Your task to perform on an android device: open wifi settings Image 0: 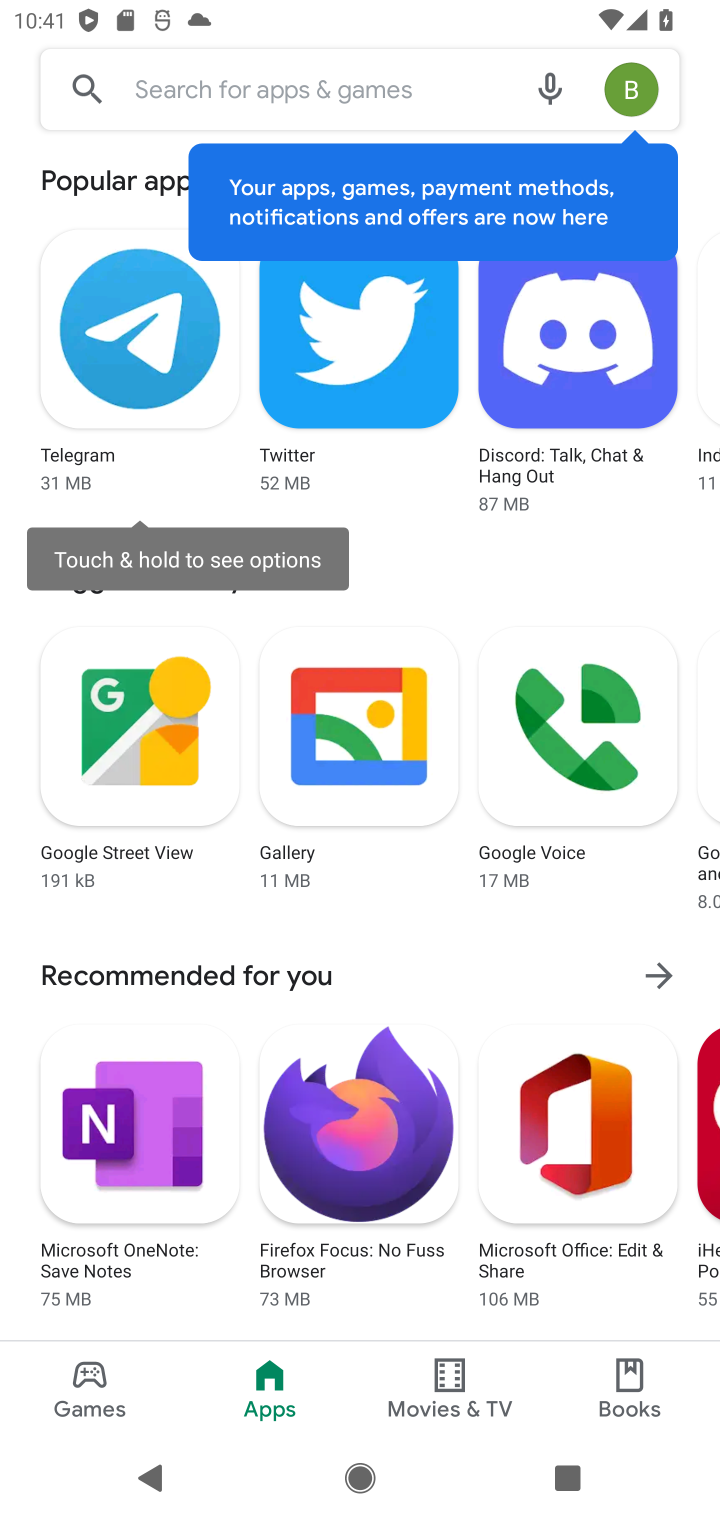
Step 0: press home button
Your task to perform on an android device: open wifi settings Image 1: 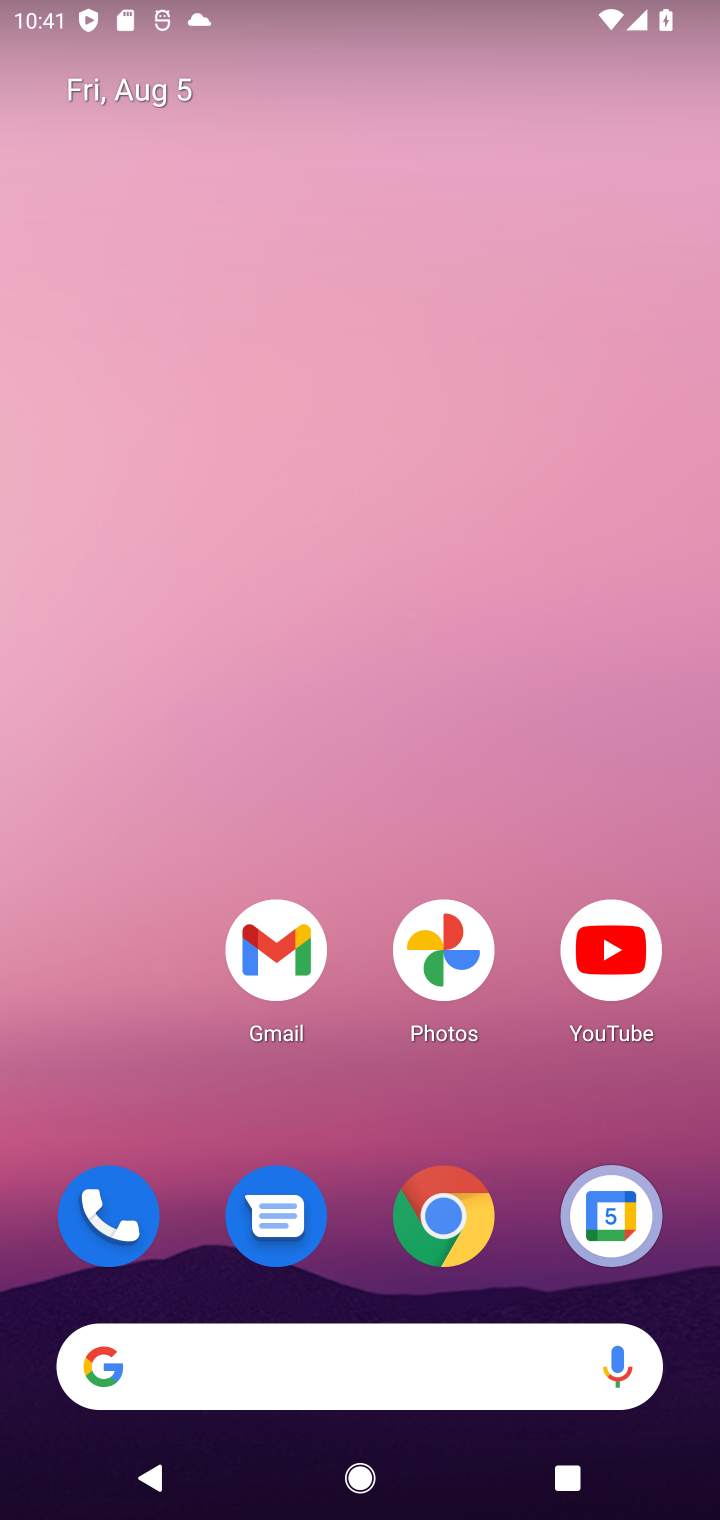
Step 1: drag from (384, 1349) to (366, 96)
Your task to perform on an android device: open wifi settings Image 2: 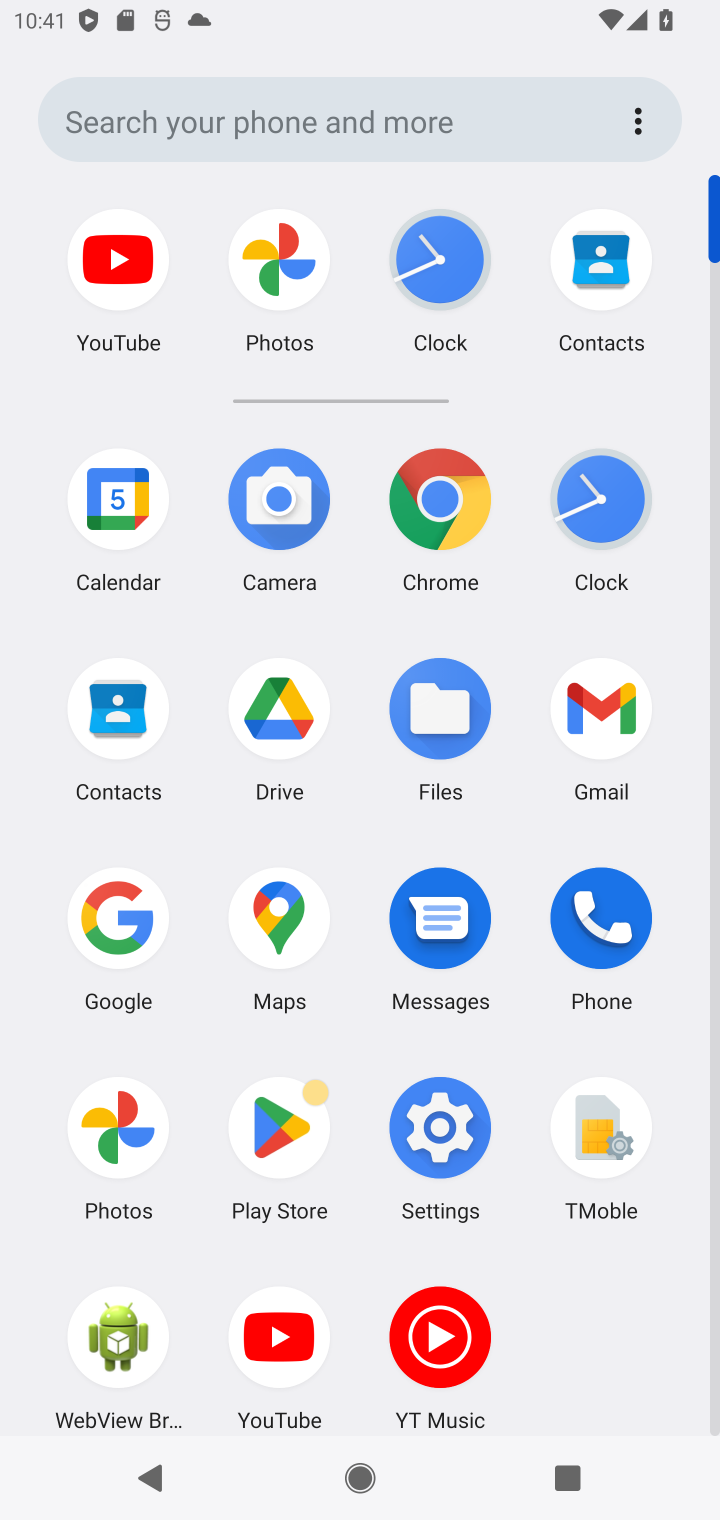
Step 2: click (430, 1134)
Your task to perform on an android device: open wifi settings Image 3: 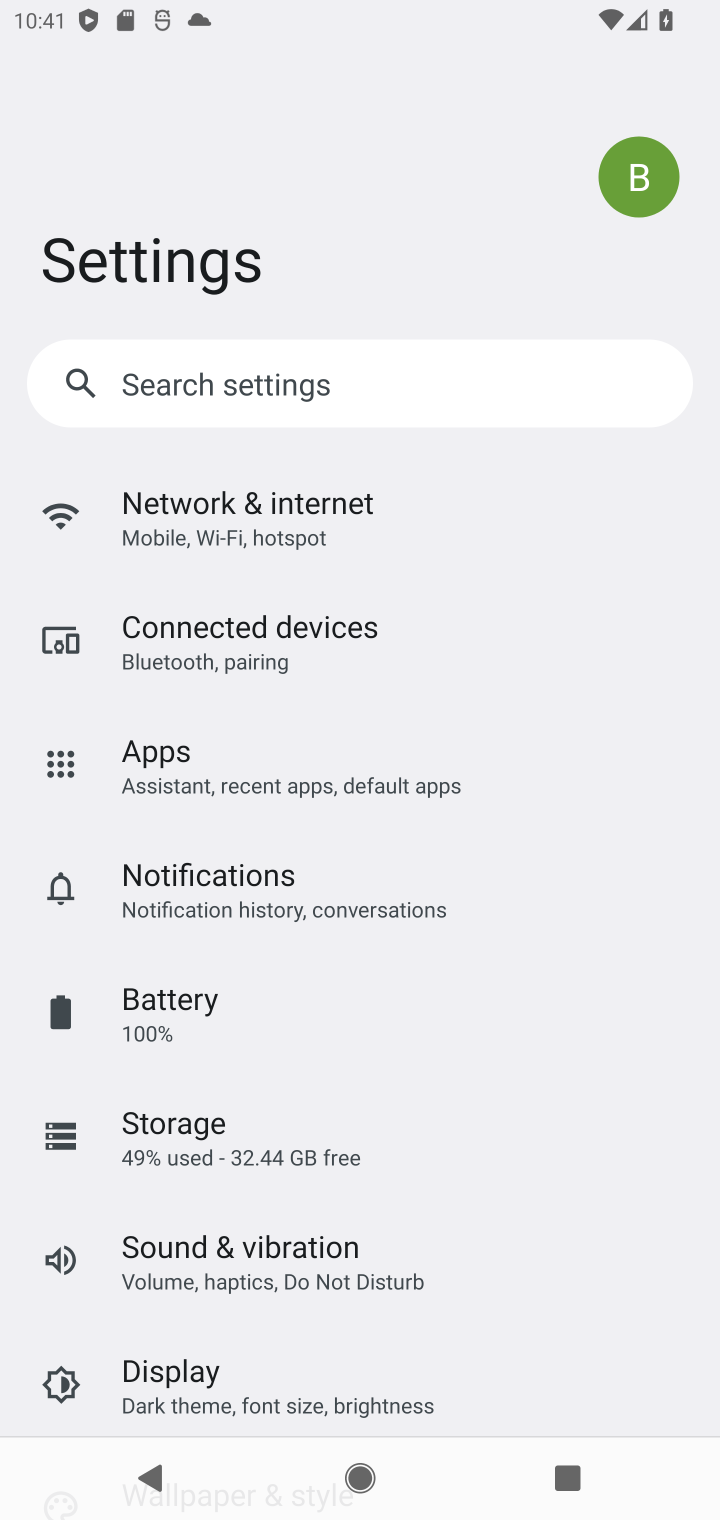
Step 3: click (227, 540)
Your task to perform on an android device: open wifi settings Image 4: 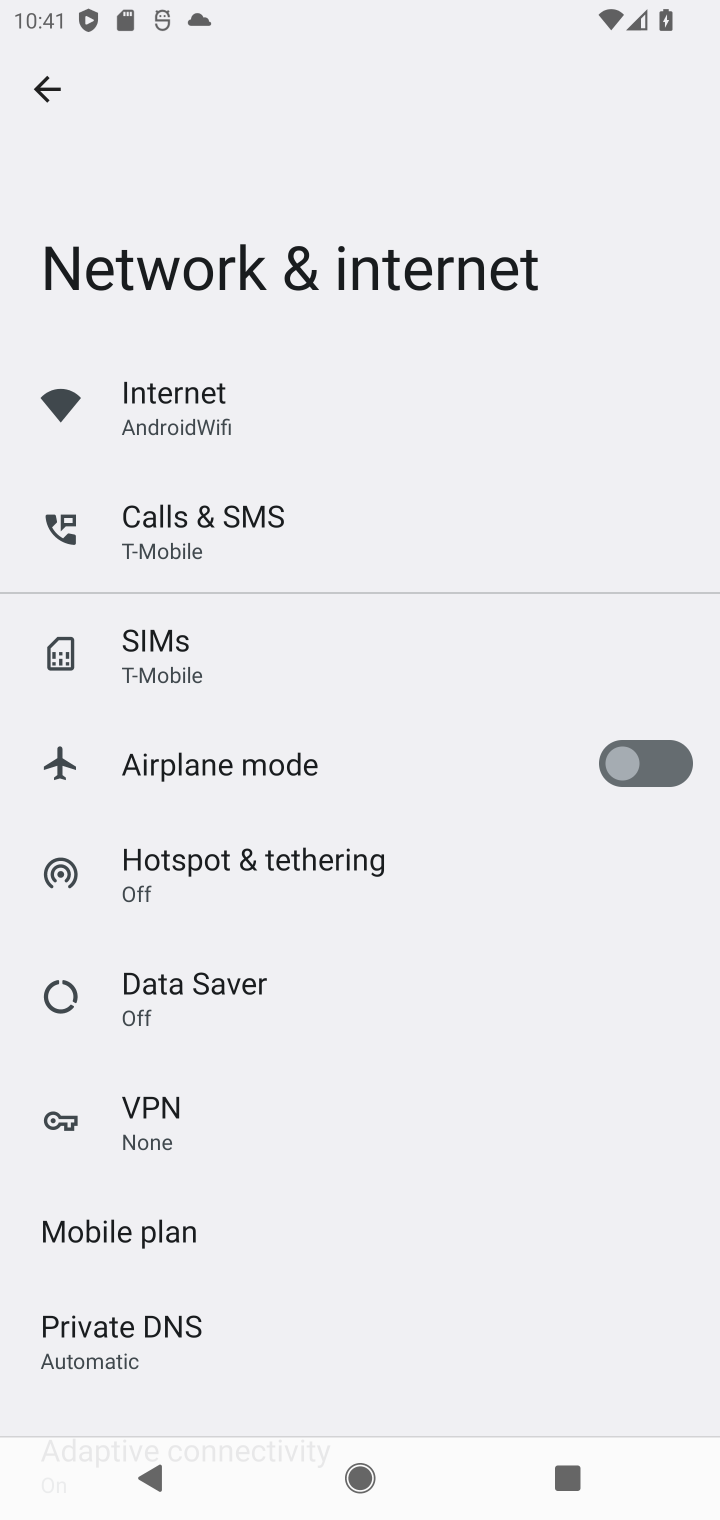
Step 4: click (229, 426)
Your task to perform on an android device: open wifi settings Image 5: 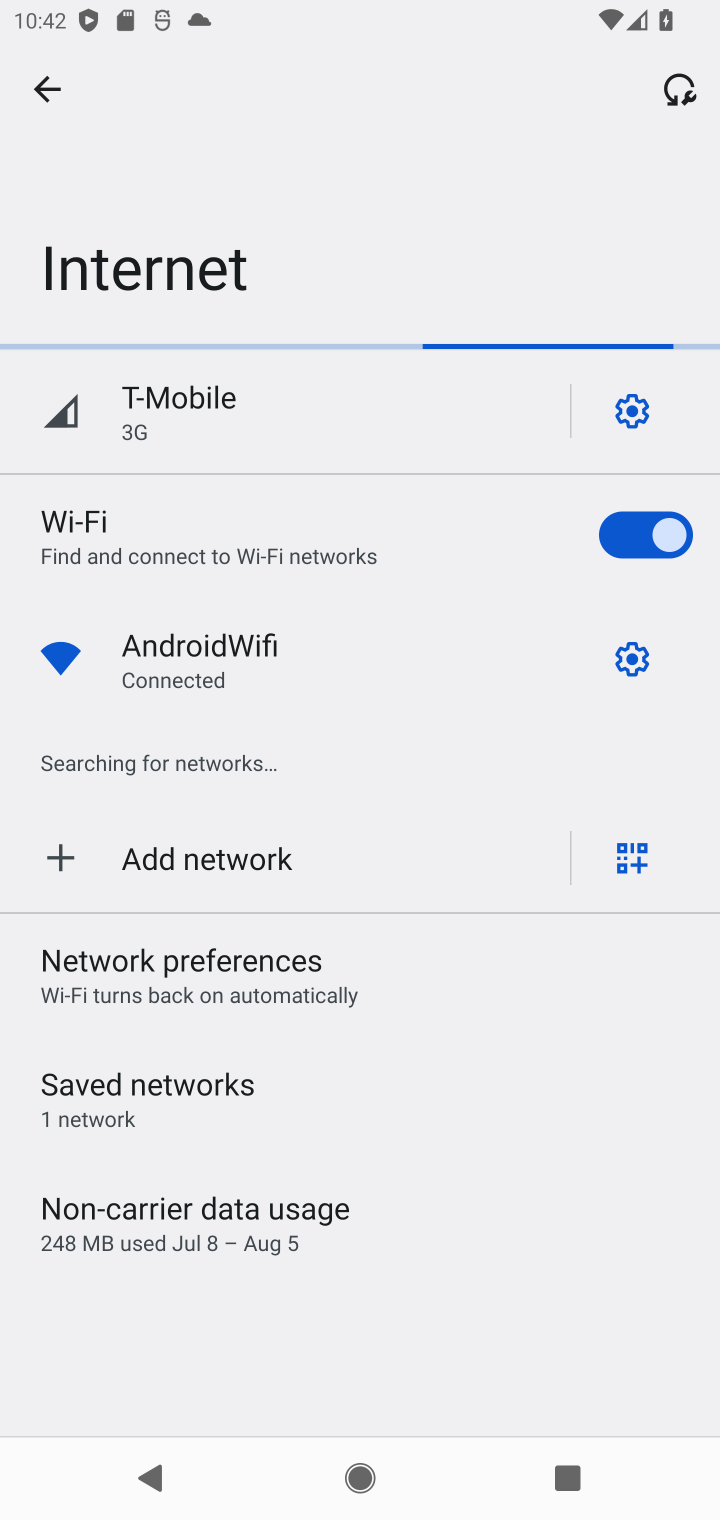
Step 5: task complete